Your task to perform on an android device: Open battery settings Image 0: 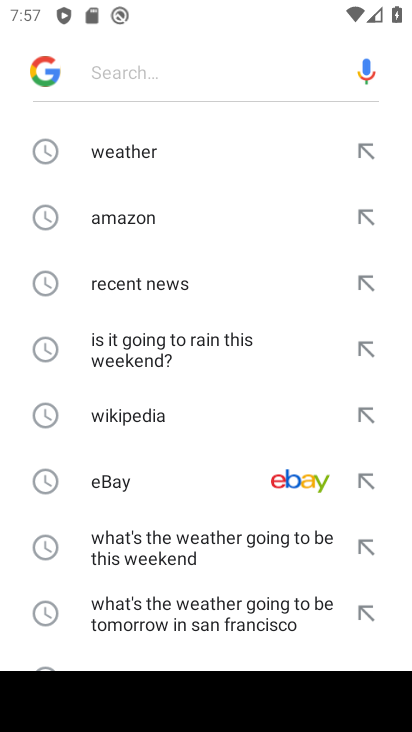
Step 0: press home button
Your task to perform on an android device: Open battery settings Image 1: 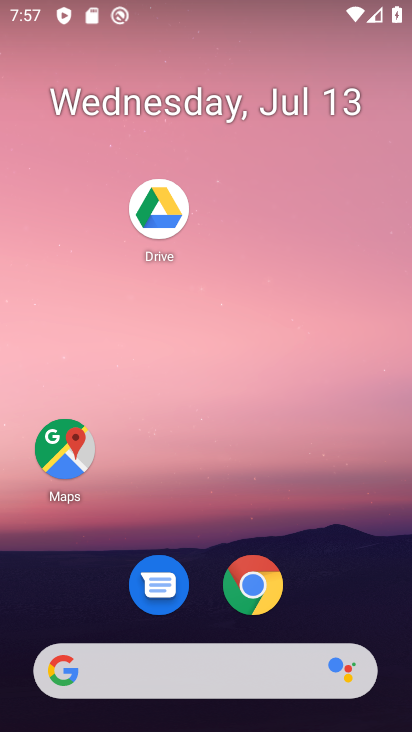
Step 1: drag from (192, 681) to (359, 164)
Your task to perform on an android device: Open battery settings Image 2: 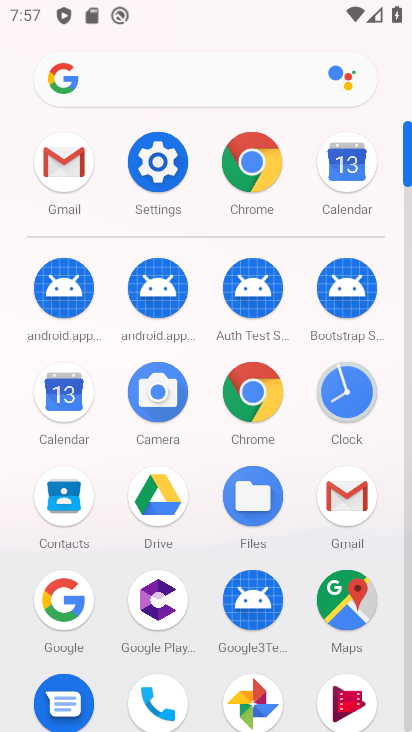
Step 2: click (147, 159)
Your task to perform on an android device: Open battery settings Image 3: 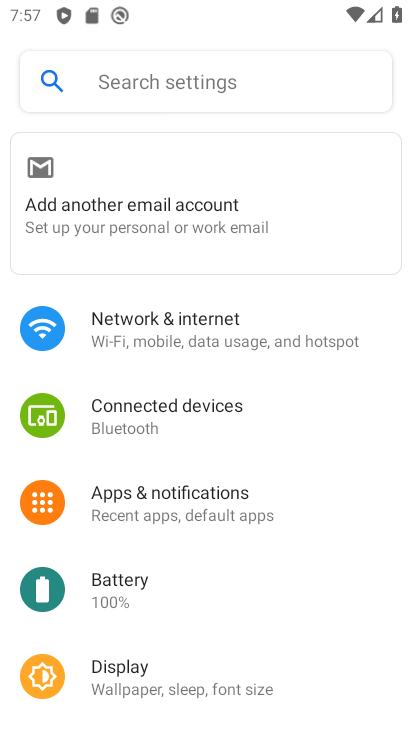
Step 3: click (120, 580)
Your task to perform on an android device: Open battery settings Image 4: 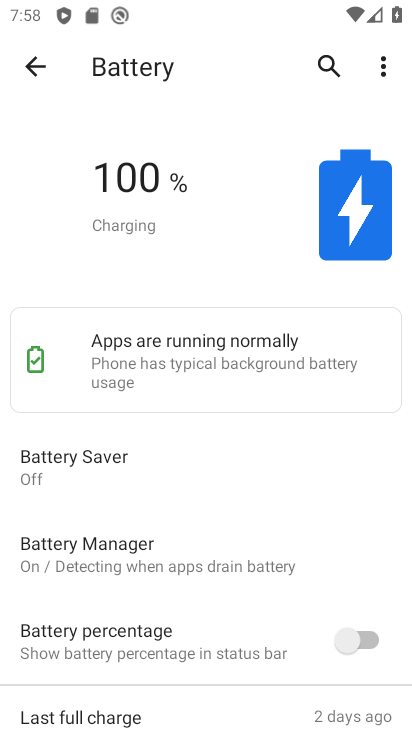
Step 4: task complete